Your task to perform on an android device: stop showing notifications on the lock screen Image 0: 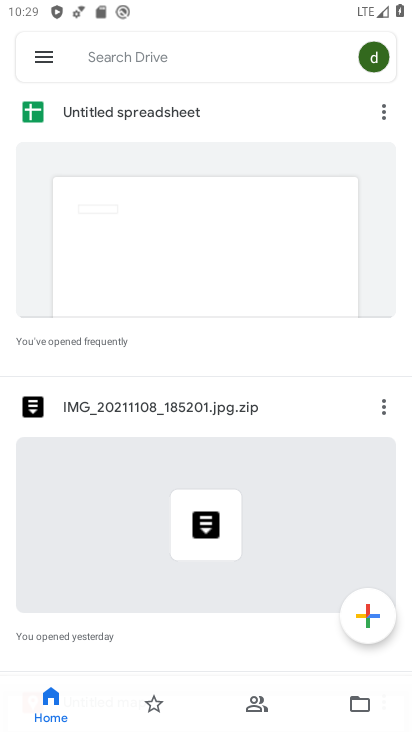
Step 0: press home button
Your task to perform on an android device: stop showing notifications on the lock screen Image 1: 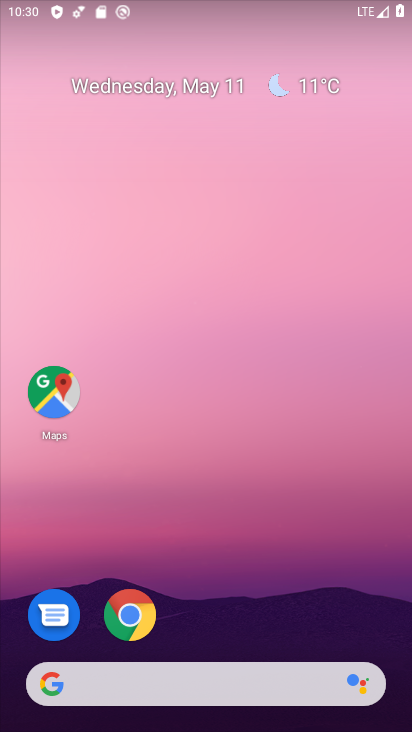
Step 1: drag from (262, 603) to (289, 79)
Your task to perform on an android device: stop showing notifications on the lock screen Image 2: 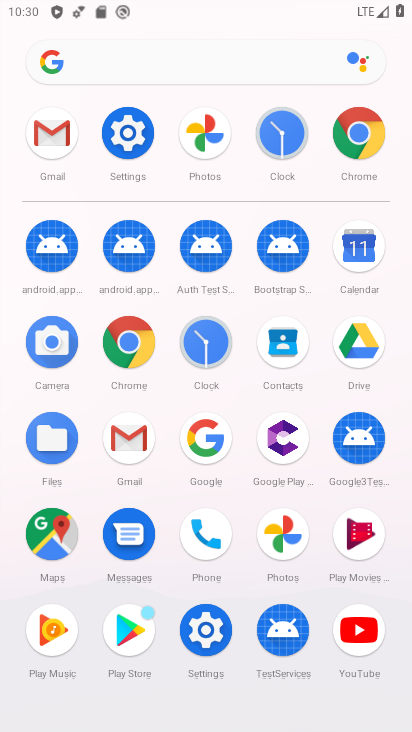
Step 2: click (131, 133)
Your task to perform on an android device: stop showing notifications on the lock screen Image 3: 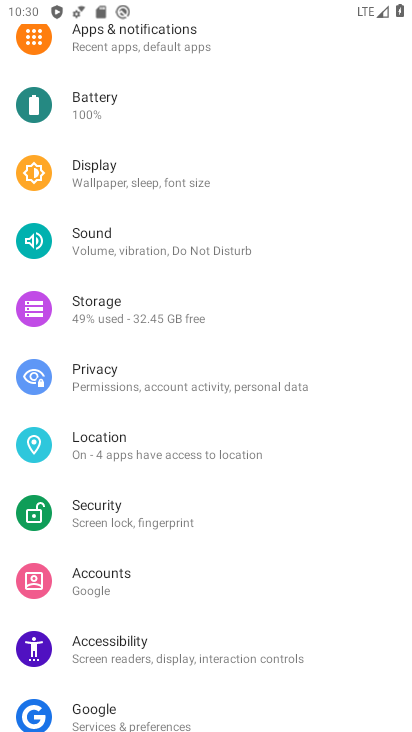
Step 3: drag from (112, 684) to (365, 147)
Your task to perform on an android device: stop showing notifications on the lock screen Image 4: 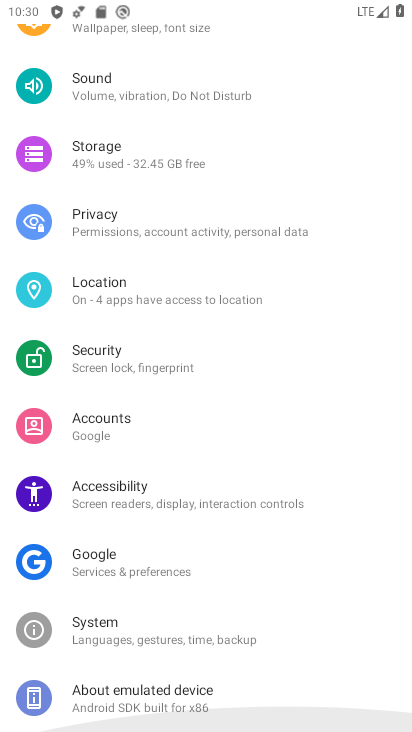
Step 4: drag from (214, 127) to (148, 725)
Your task to perform on an android device: stop showing notifications on the lock screen Image 5: 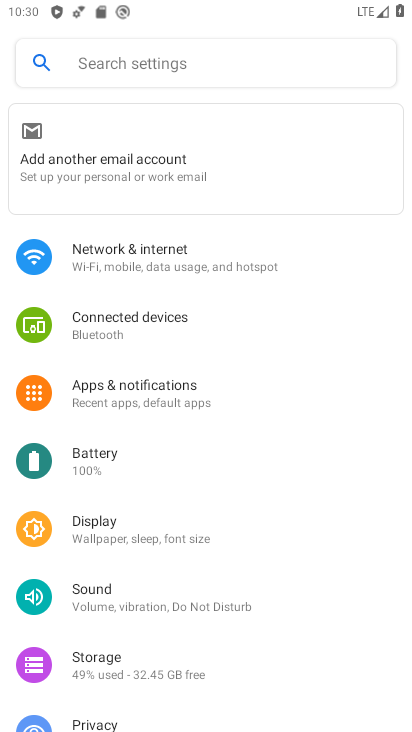
Step 5: click (136, 407)
Your task to perform on an android device: stop showing notifications on the lock screen Image 6: 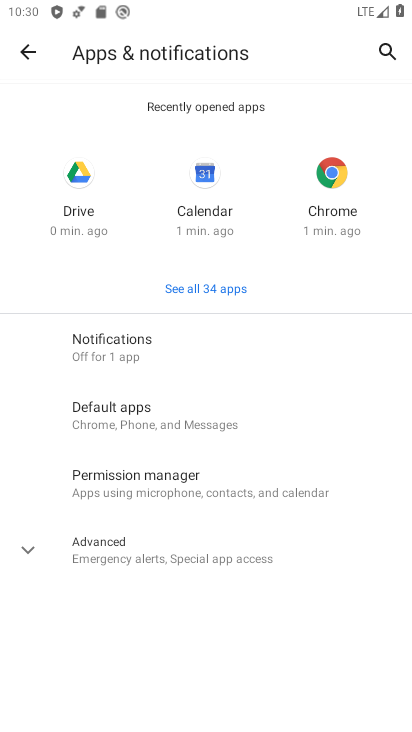
Step 6: click (203, 324)
Your task to perform on an android device: stop showing notifications on the lock screen Image 7: 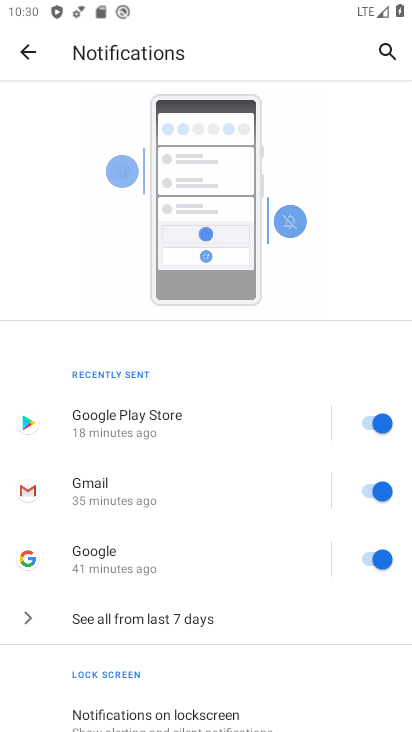
Step 7: drag from (132, 658) to (263, 251)
Your task to perform on an android device: stop showing notifications on the lock screen Image 8: 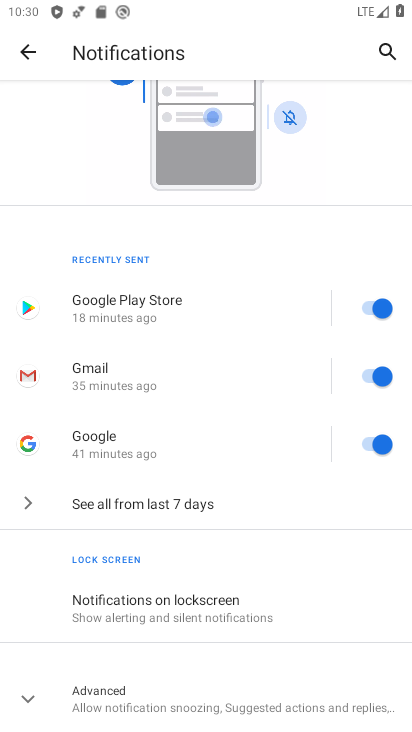
Step 8: click (155, 605)
Your task to perform on an android device: stop showing notifications on the lock screen Image 9: 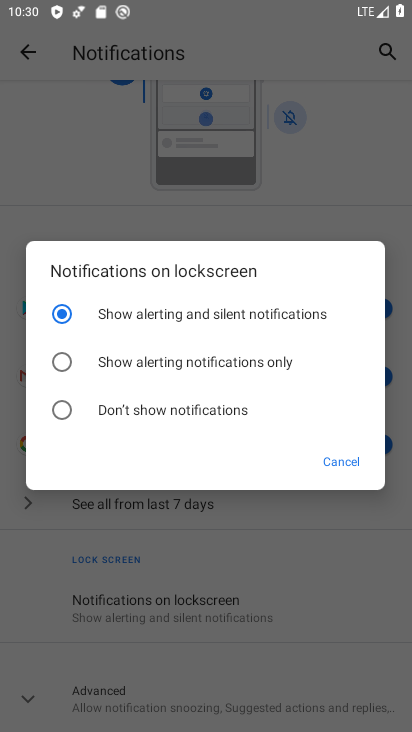
Step 9: click (151, 414)
Your task to perform on an android device: stop showing notifications on the lock screen Image 10: 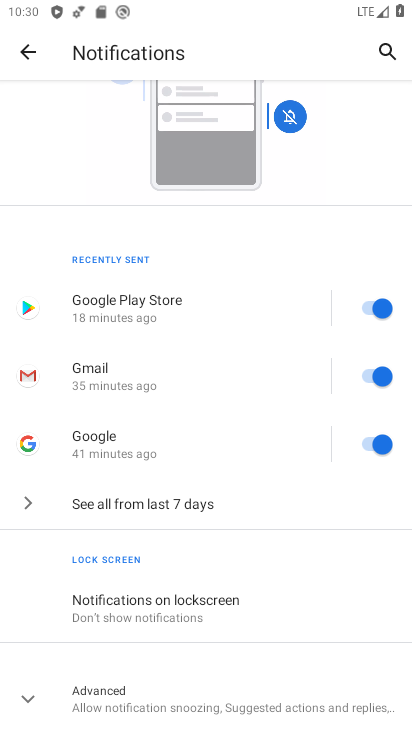
Step 10: task complete